Your task to perform on an android device: Go to Google Image 0: 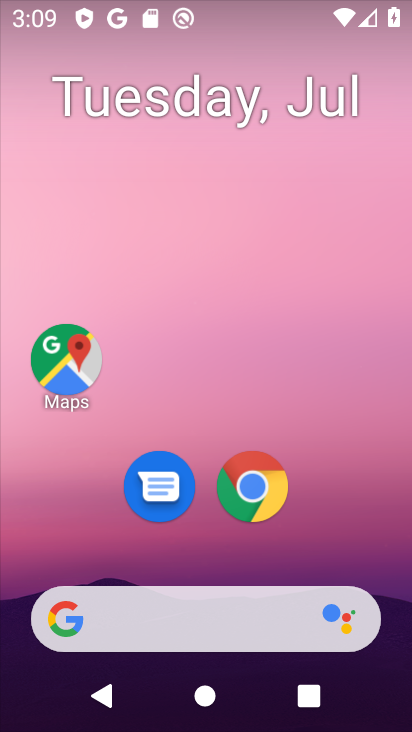
Step 0: drag from (135, 552) to (295, 25)
Your task to perform on an android device: Go to Google Image 1: 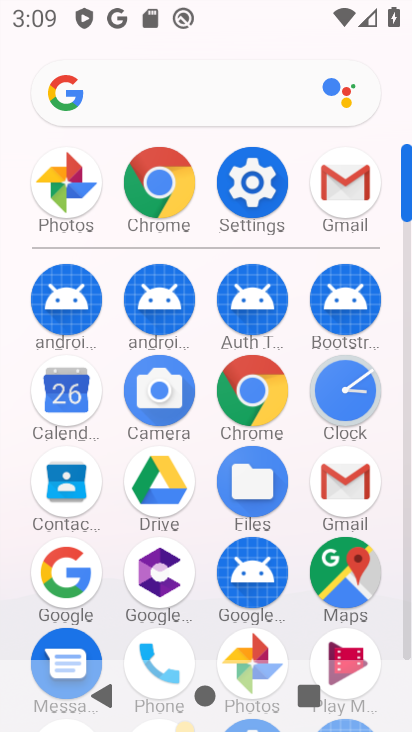
Step 1: click (82, 579)
Your task to perform on an android device: Go to Google Image 2: 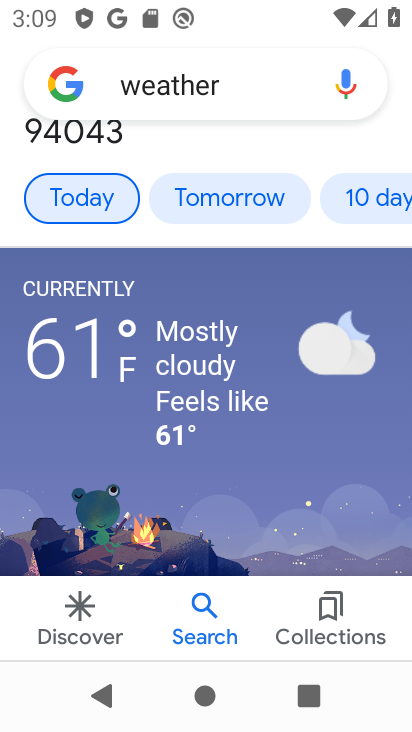
Step 2: task complete